Your task to perform on an android device: Add "logitech g pro" to the cart on walmart, then select checkout. Image 0: 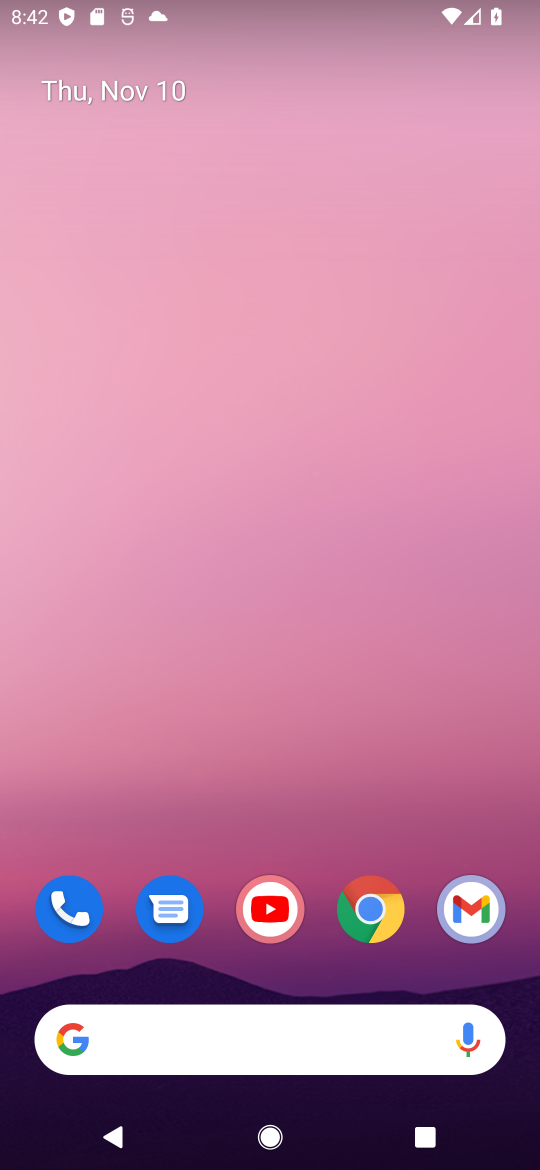
Step 0: drag from (392, 1068) to (238, 216)
Your task to perform on an android device: Add "logitech g pro" to the cart on walmart, then select checkout. Image 1: 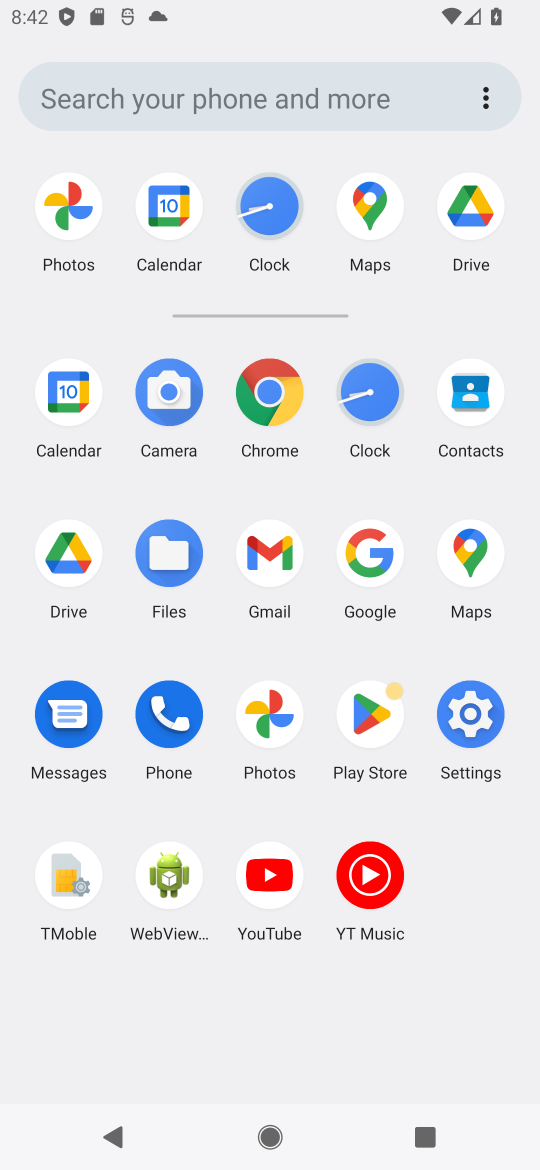
Step 1: click (350, 540)
Your task to perform on an android device: Add "logitech g pro" to the cart on walmart, then select checkout. Image 2: 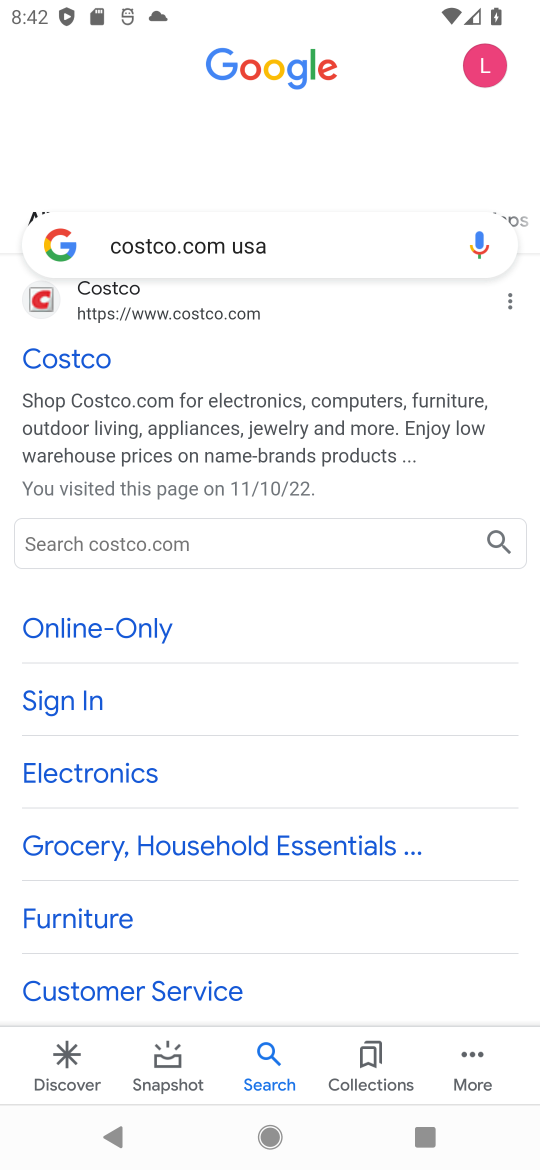
Step 2: click (296, 257)
Your task to perform on an android device: Add "logitech g pro" to the cart on walmart, then select checkout. Image 3: 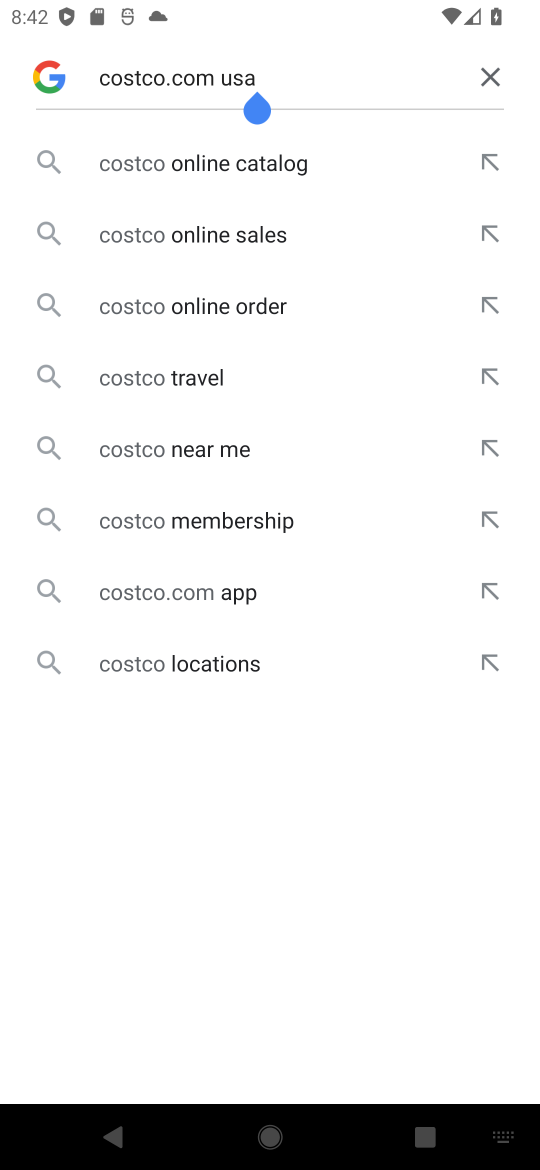
Step 3: click (474, 90)
Your task to perform on an android device: Add "logitech g pro" to the cart on walmart, then select checkout. Image 4: 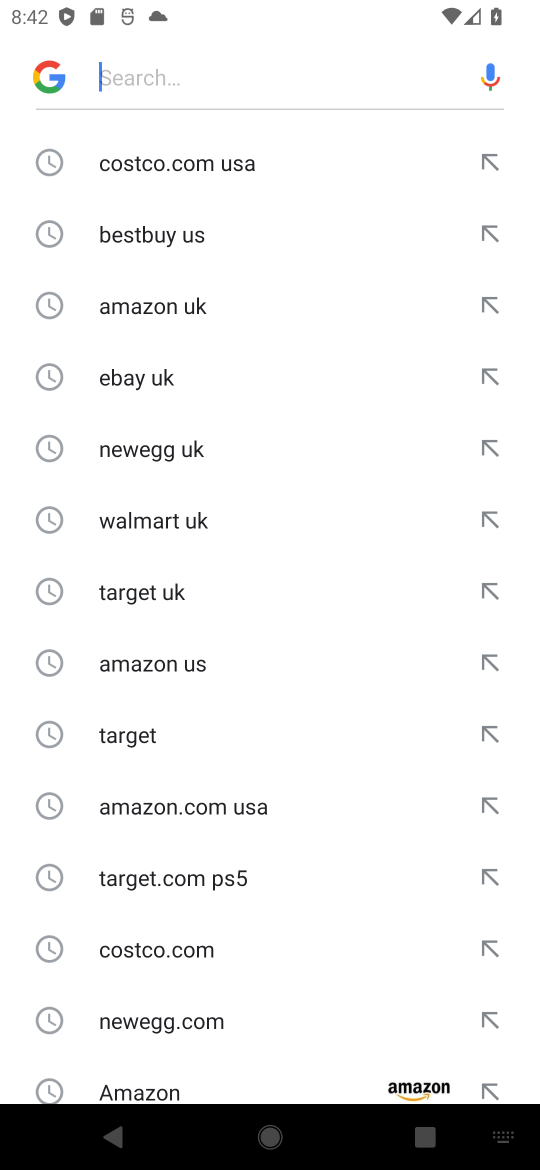
Step 4: click (139, 515)
Your task to perform on an android device: Add "logitech g pro" to the cart on walmart, then select checkout. Image 5: 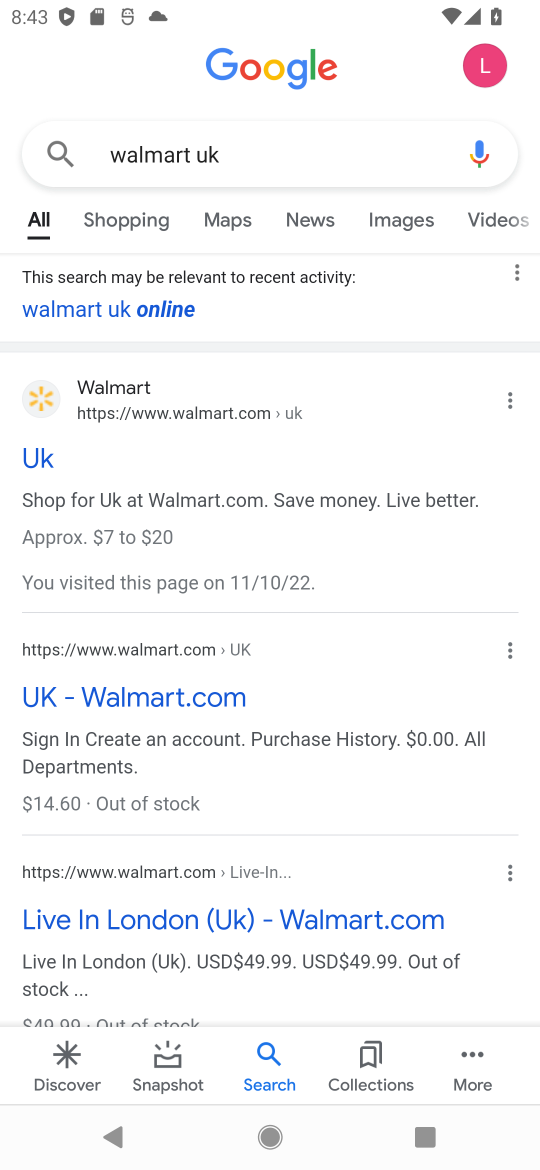
Step 5: click (38, 378)
Your task to perform on an android device: Add "logitech g pro" to the cart on walmart, then select checkout. Image 6: 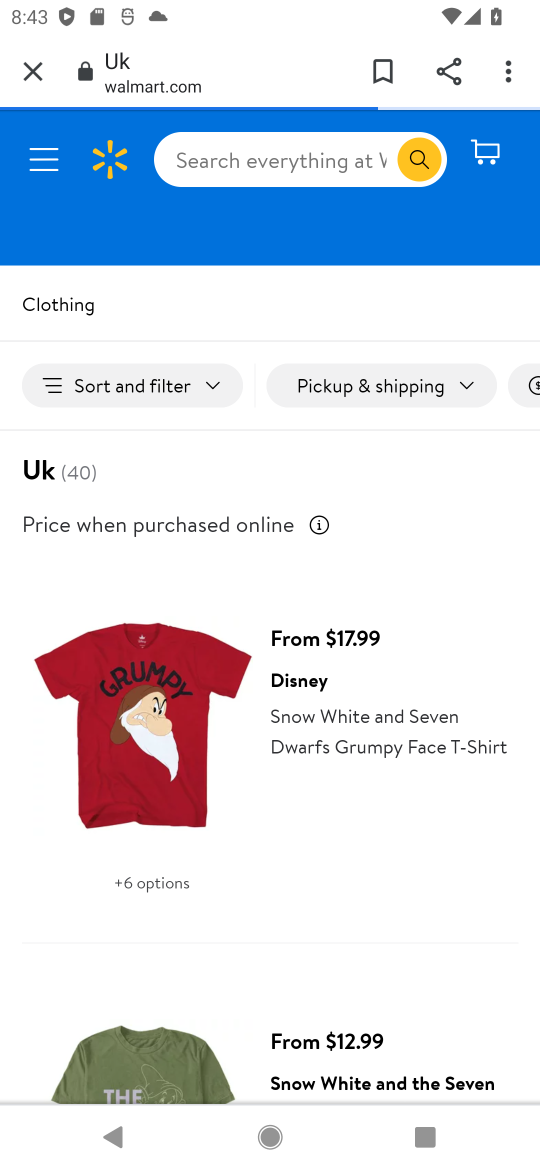
Step 6: click (292, 142)
Your task to perform on an android device: Add "logitech g pro" to the cart on walmart, then select checkout. Image 7: 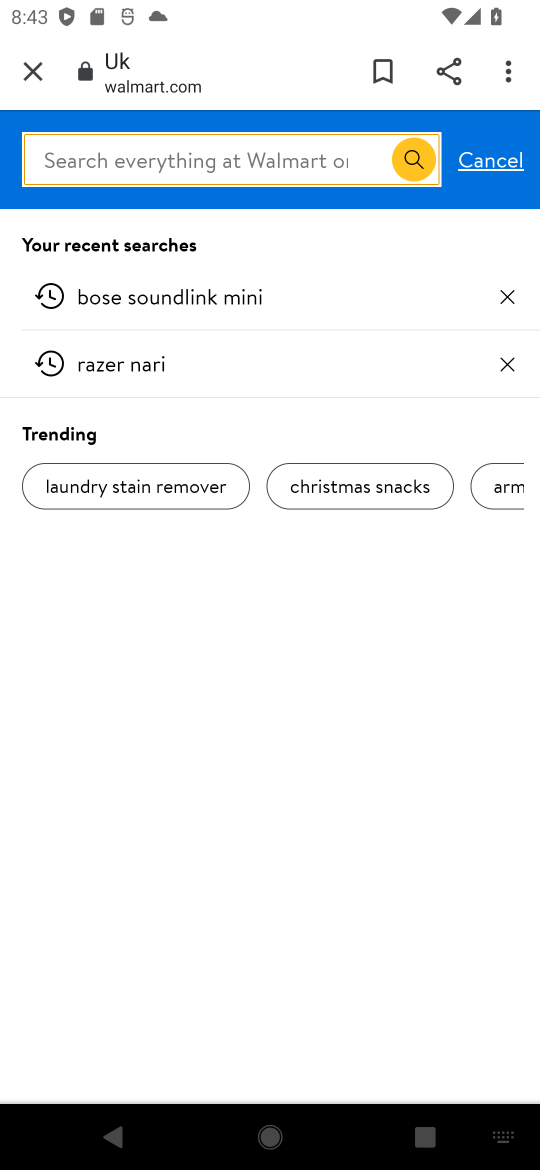
Step 7: click (149, 142)
Your task to perform on an android device: Add "logitech g pro" to the cart on walmart, then select checkout. Image 8: 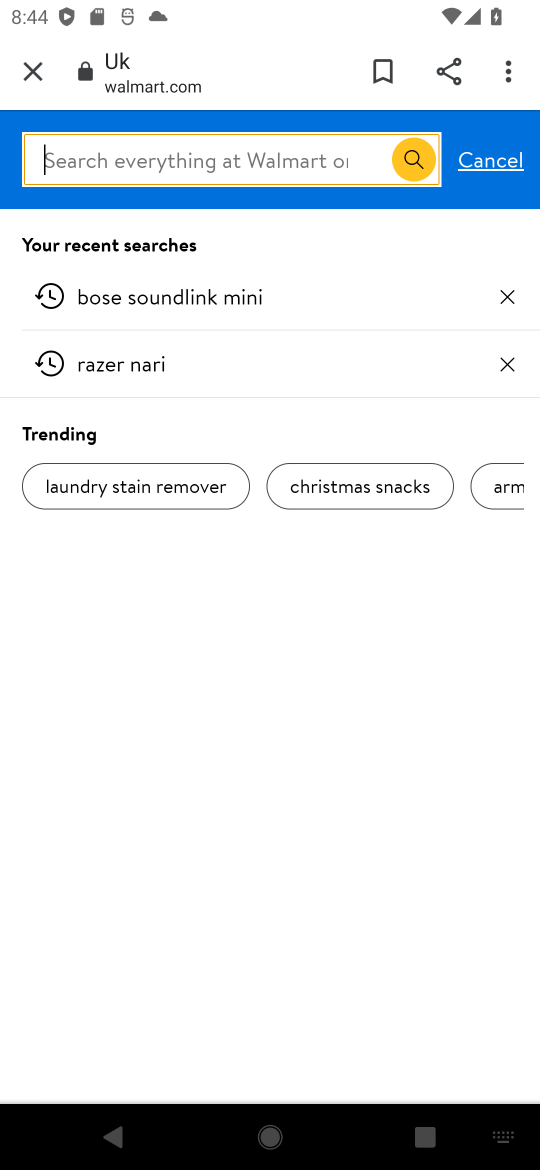
Step 8: type "logitech g pro "
Your task to perform on an android device: Add "logitech g pro" to the cart on walmart, then select checkout. Image 9: 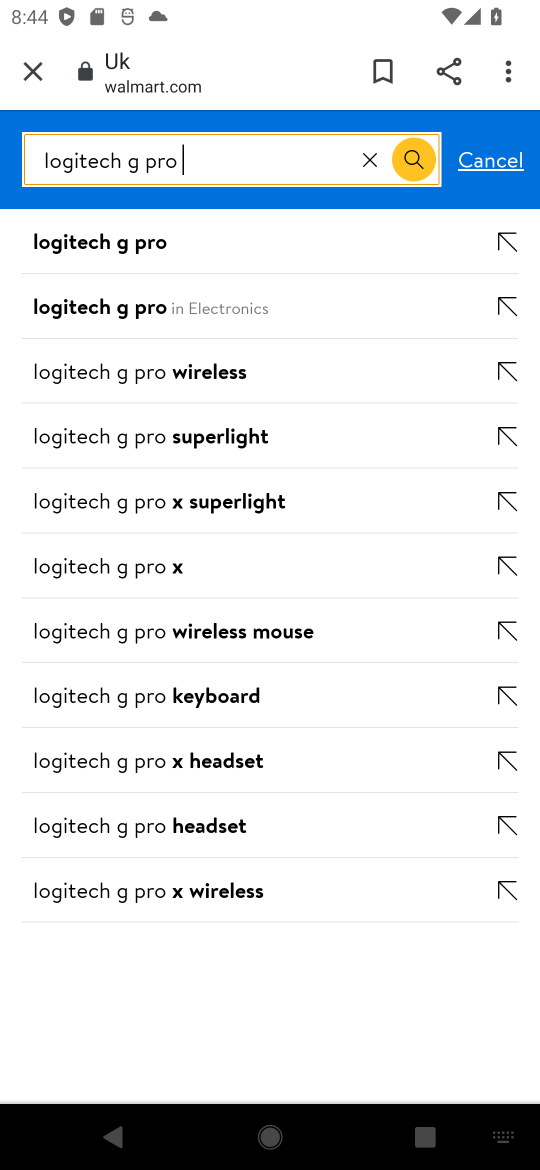
Step 9: click (199, 237)
Your task to perform on an android device: Add "logitech g pro" to the cart on walmart, then select checkout. Image 10: 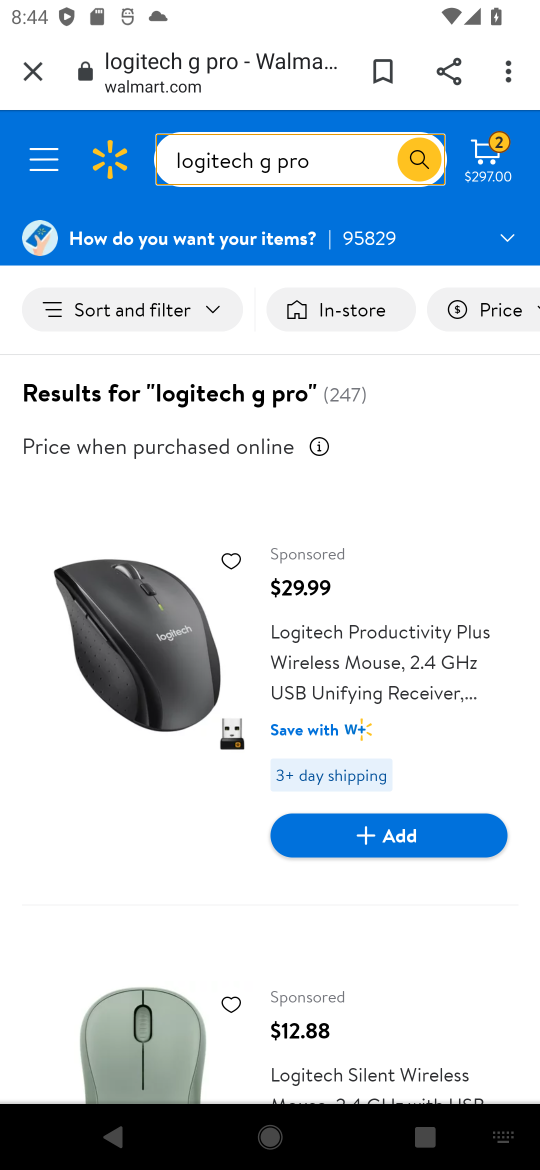
Step 10: click (380, 824)
Your task to perform on an android device: Add "logitech g pro" to the cart on walmart, then select checkout. Image 11: 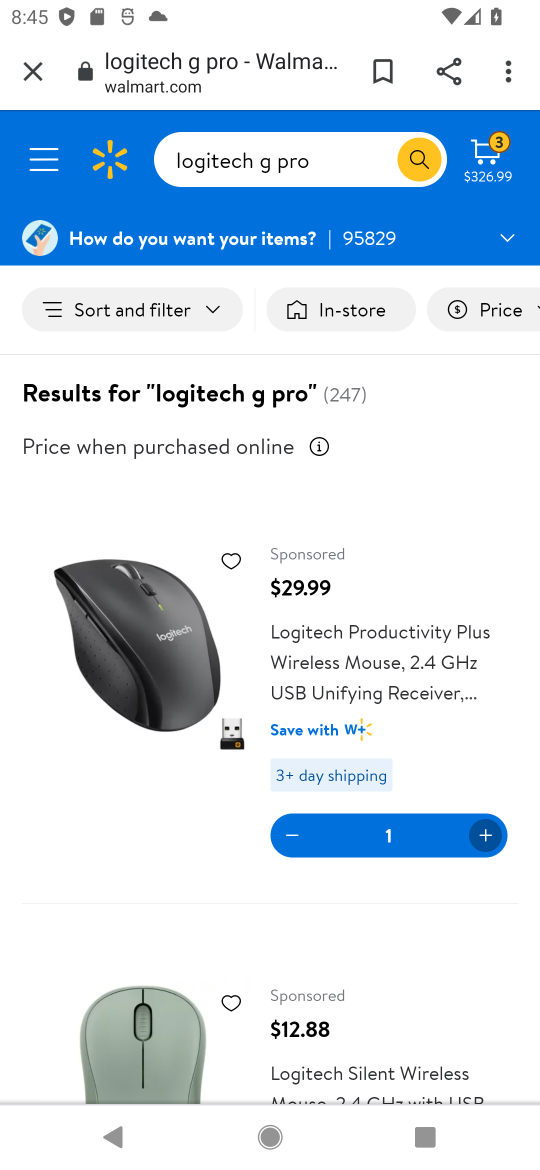
Step 11: task complete